Your task to perform on an android device: search for starred emails in the gmail app Image 0: 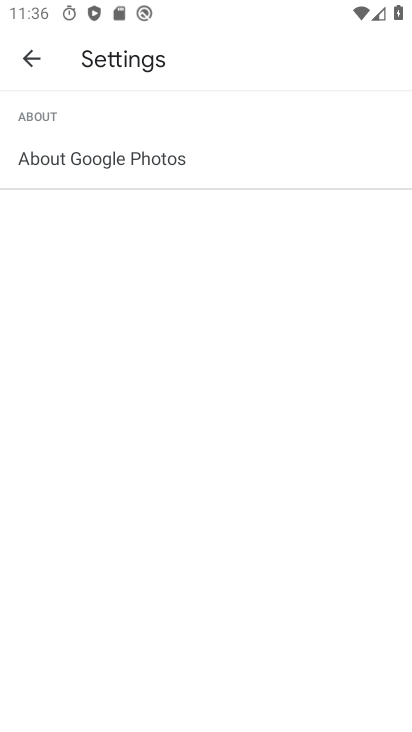
Step 0: drag from (250, 582) to (226, 178)
Your task to perform on an android device: search for starred emails in the gmail app Image 1: 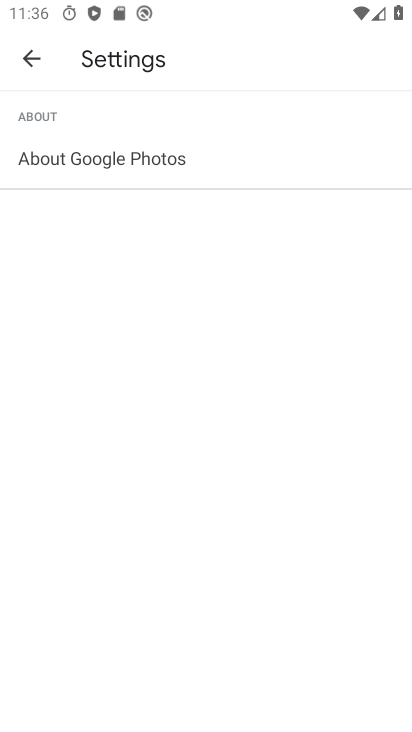
Step 1: press home button
Your task to perform on an android device: search for starred emails in the gmail app Image 2: 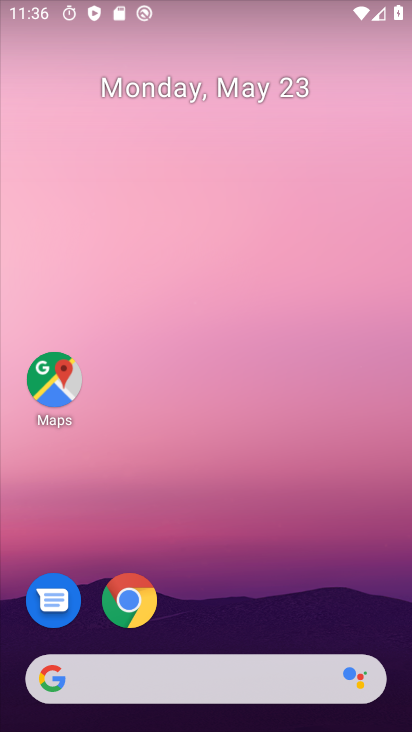
Step 2: drag from (327, 547) to (260, 0)
Your task to perform on an android device: search for starred emails in the gmail app Image 3: 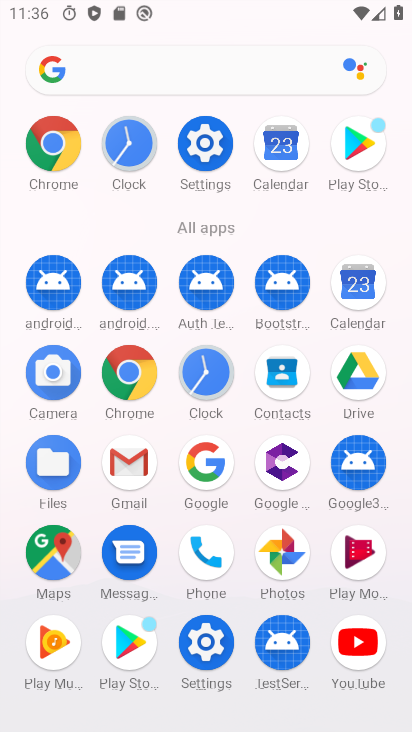
Step 3: click (146, 465)
Your task to perform on an android device: search for starred emails in the gmail app Image 4: 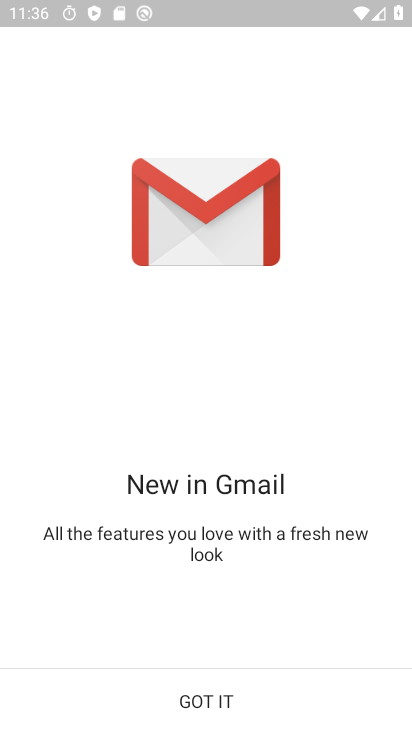
Step 4: click (258, 702)
Your task to perform on an android device: search for starred emails in the gmail app Image 5: 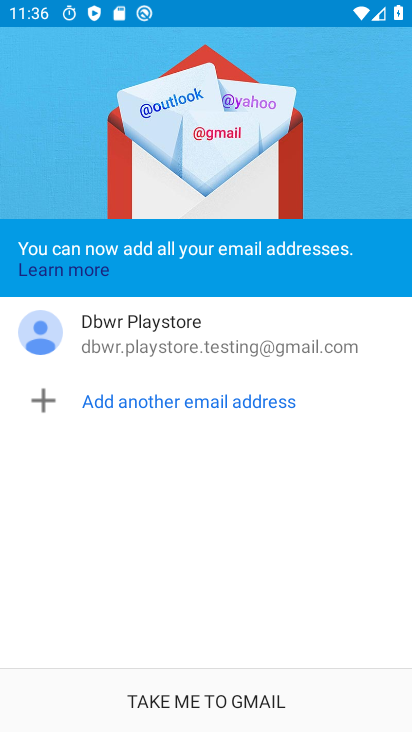
Step 5: click (258, 700)
Your task to perform on an android device: search for starred emails in the gmail app Image 6: 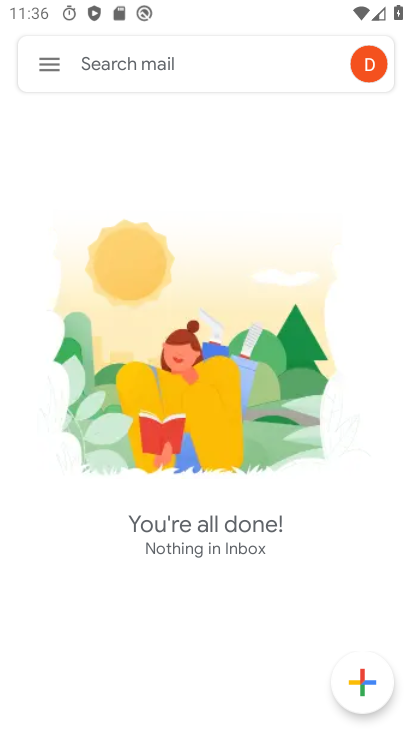
Step 6: click (51, 69)
Your task to perform on an android device: search for starred emails in the gmail app Image 7: 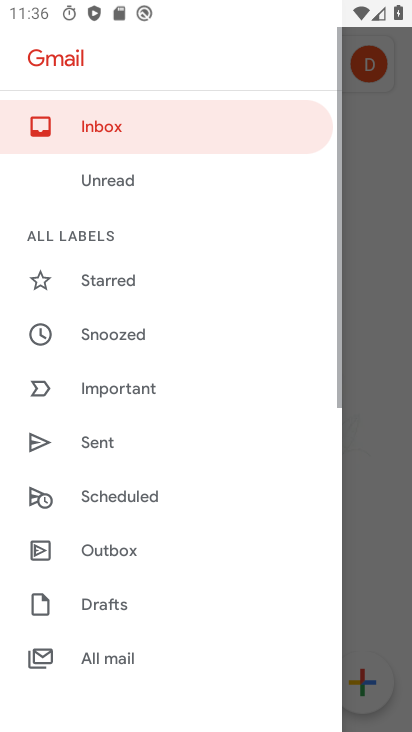
Step 7: click (136, 281)
Your task to perform on an android device: search for starred emails in the gmail app Image 8: 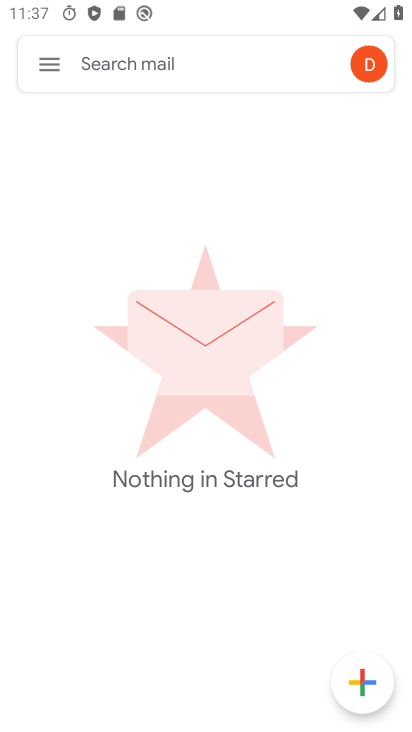
Step 8: task complete